Your task to perform on an android device: all mails in gmail Image 0: 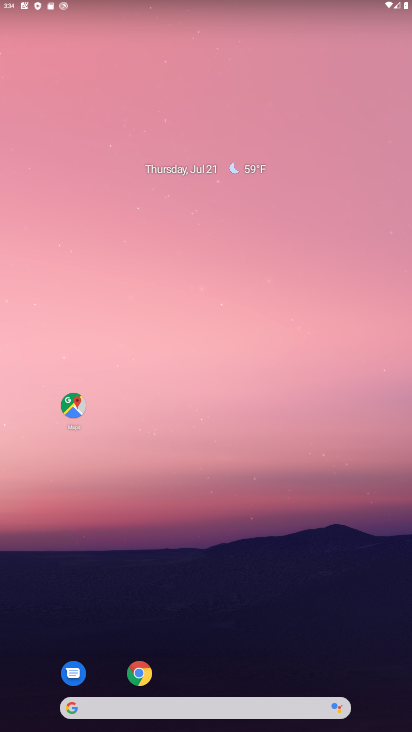
Step 0: drag from (346, 669) to (310, 69)
Your task to perform on an android device: all mails in gmail Image 1: 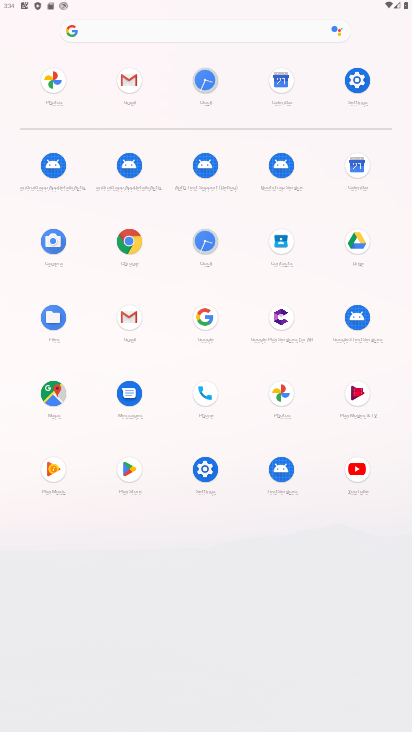
Step 1: click (126, 315)
Your task to perform on an android device: all mails in gmail Image 2: 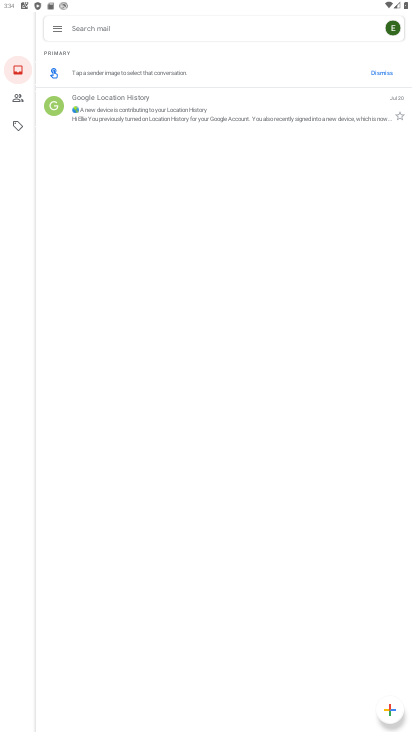
Step 2: click (58, 29)
Your task to perform on an android device: all mails in gmail Image 3: 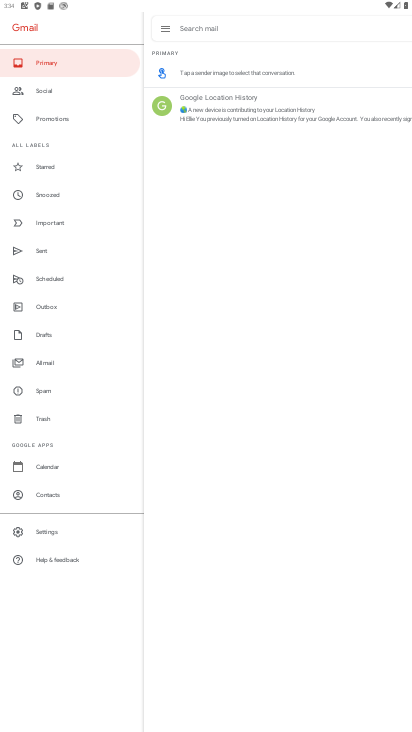
Step 3: click (49, 358)
Your task to perform on an android device: all mails in gmail Image 4: 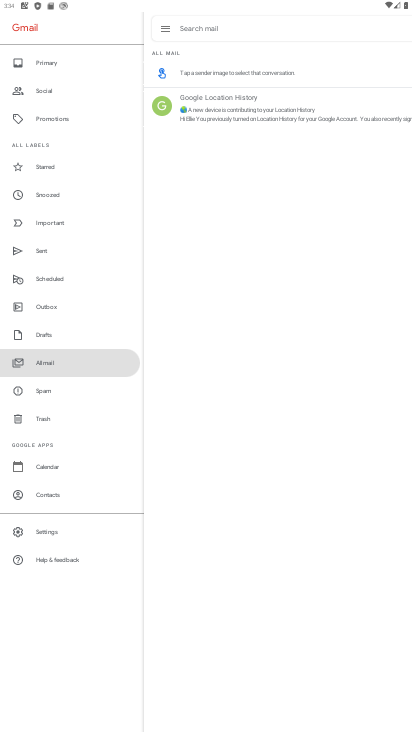
Step 4: task complete